Your task to perform on an android device: move a message to another label in the gmail app Image 0: 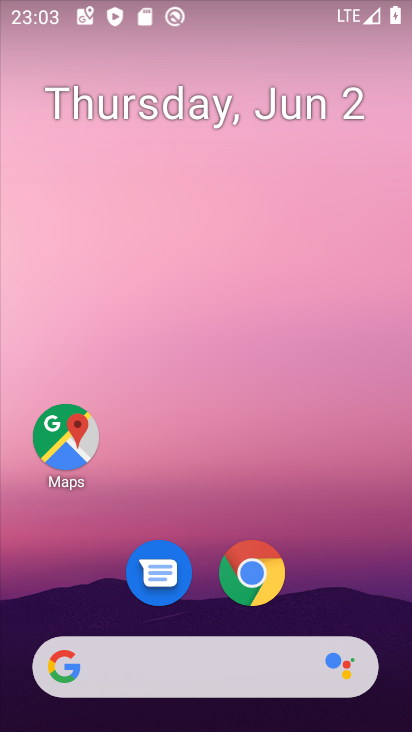
Step 0: drag from (348, 540) to (377, 109)
Your task to perform on an android device: move a message to another label in the gmail app Image 1: 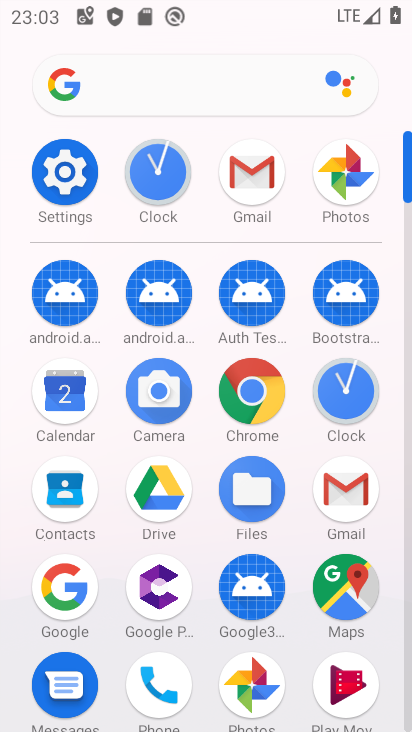
Step 1: click (240, 170)
Your task to perform on an android device: move a message to another label in the gmail app Image 2: 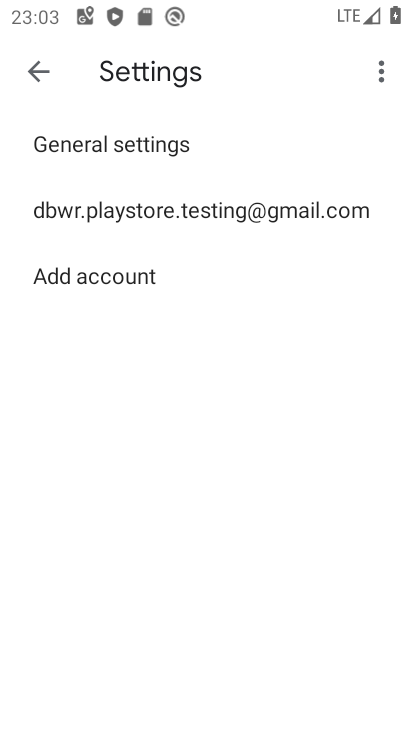
Step 2: click (39, 66)
Your task to perform on an android device: move a message to another label in the gmail app Image 3: 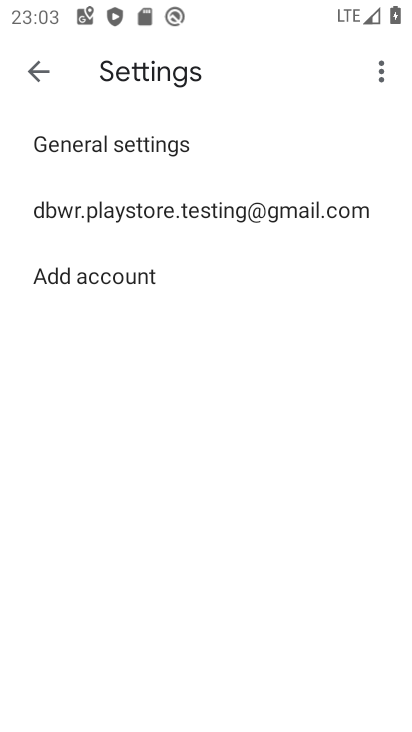
Step 3: click (39, 66)
Your task to perform on an android device: move a message to another label in the gmail app Image 4: 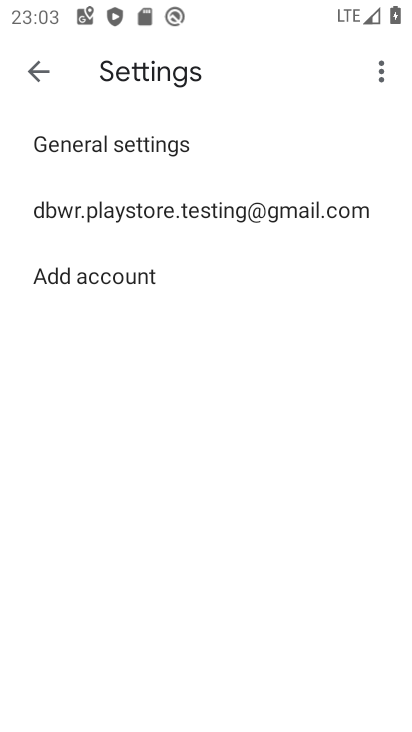
Step 4: click (39, 66)
Your task to perform on an android device: move a message to another label in the gmail app Image 5: 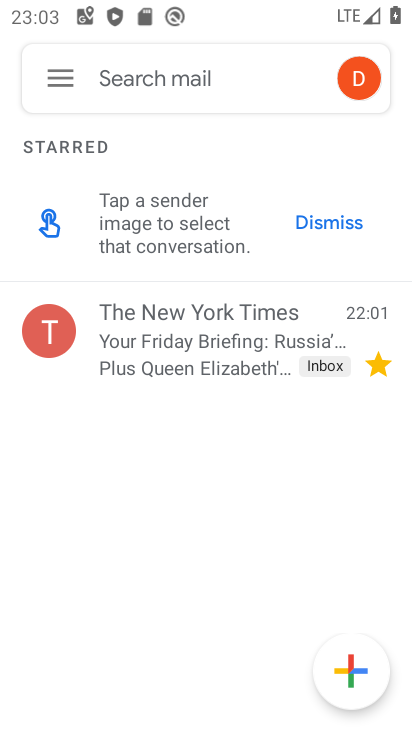
Step 5: click (40, 66)
Your task to perform on an android device: move a message to another label in the gmail app Image 6: 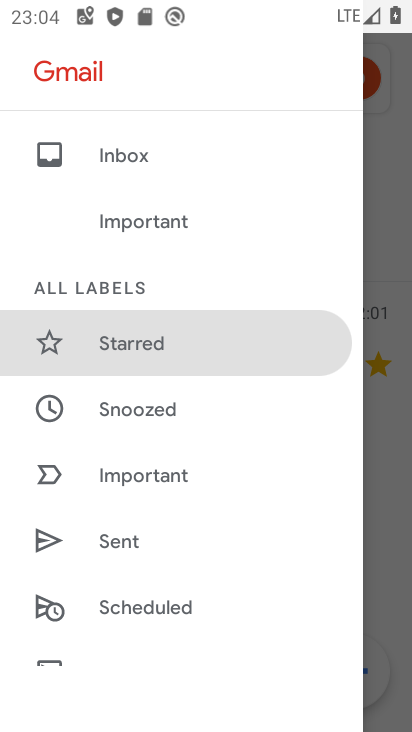
Step 6: drag from (136, 515) to (103, 171)
Your task to perform on an android device: move a message to another label in the gmail app Image 7: 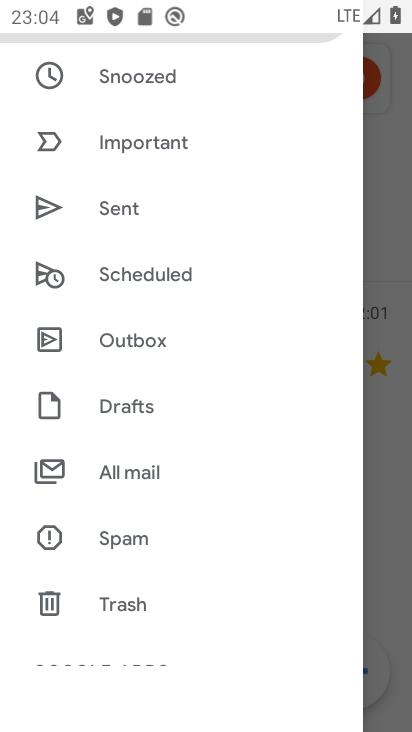
Step 7: click (149, 458)
Your task to perform on an android device: move a message to another label in the gmail app Image 8: 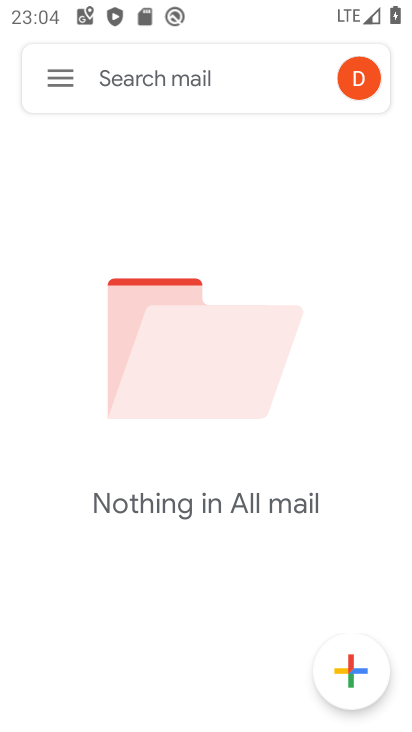
Step 8: task complete